Your task to perform on an android device: turn pop-ups on in chrome Image 0: 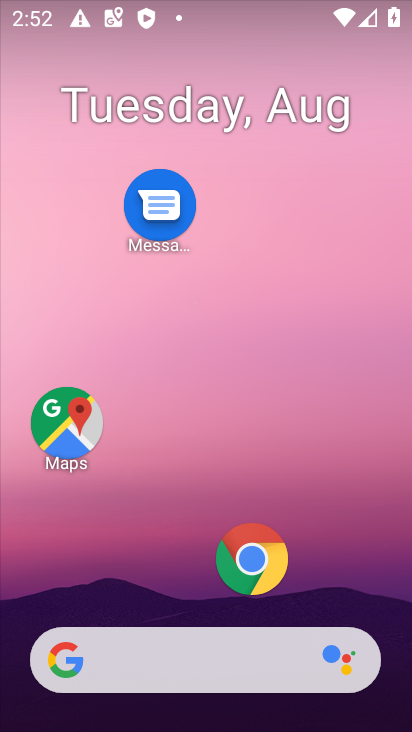
Step 0: click (250, 558)
Your task to perform on an android device: turn pop-ups on in chrome Image 1: 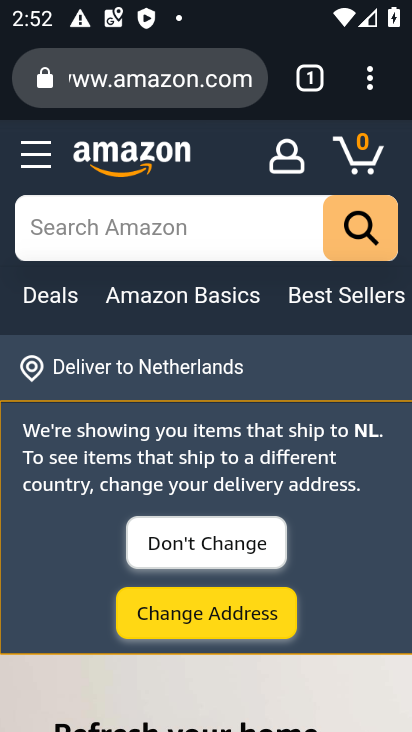
Step 1: click (365, 75)
Your task to perform on an android device: turn pop-ups on in chrome Image 2: 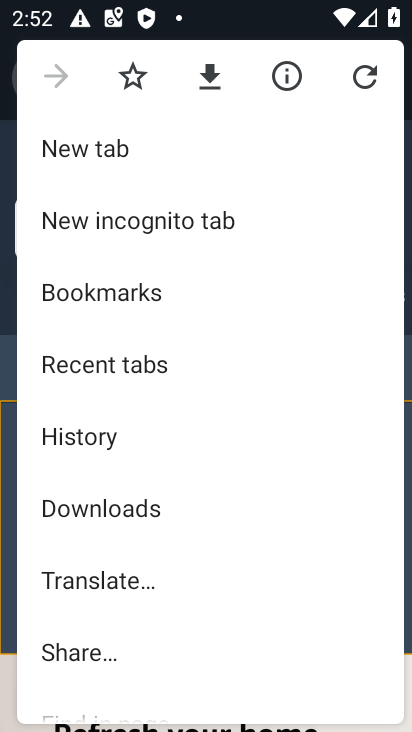
Step 2: drag from (191, 607) to (191, 309)
Your task to perform on an android device: turn pop-ups on in chrome Image 3: 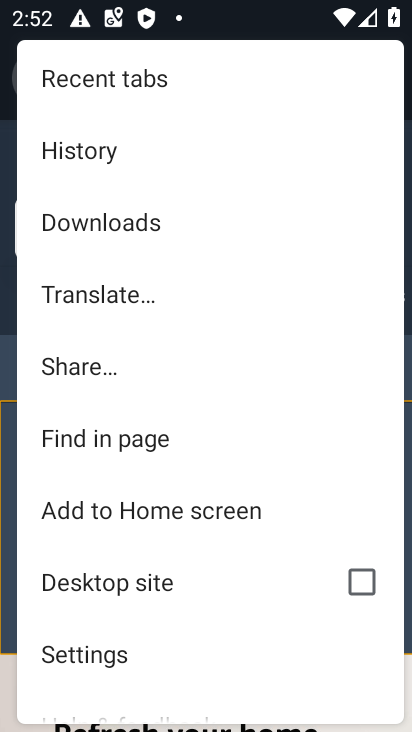
Step 3: click (105, 648)
Your task to perform on an android device: turn pop-ups on in chrome Image 4: 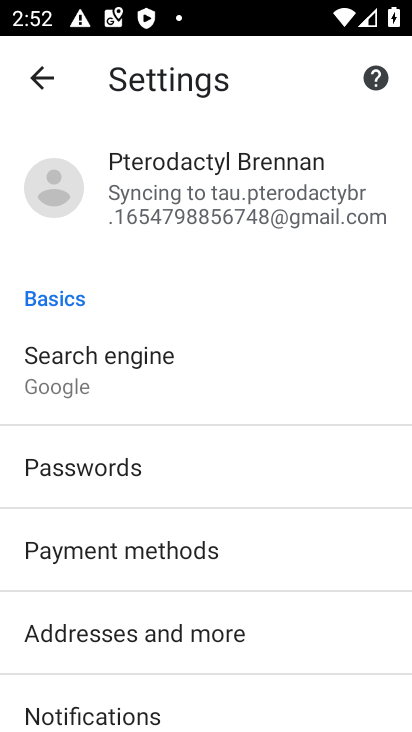
Step 4: drag from (242, 652) to (203, 347)
Your task to perform on an android device: turn pop-ups on in chrome Image 5: 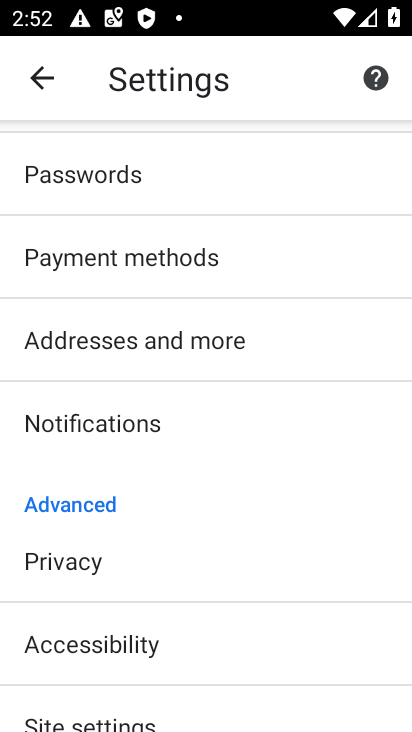
Step 5: drag from (185, 558) to (170, 262)
Your task to perform on an android device: turn pop-ups on in chrome Image 6: 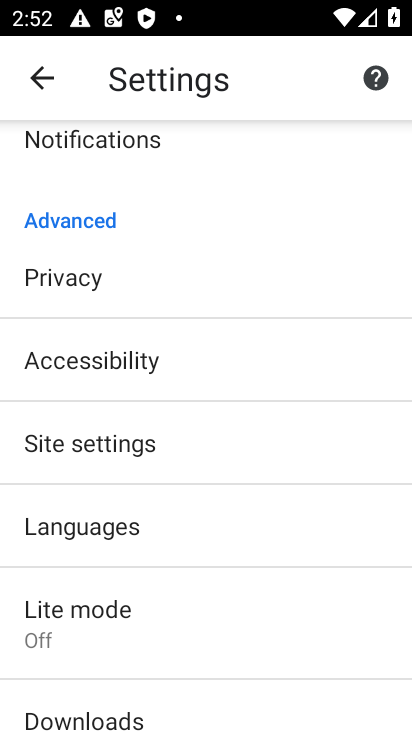
Step 6: click (100, 441)
Your task to perform on an android device: turn pop-ups on in chrome Image 7: 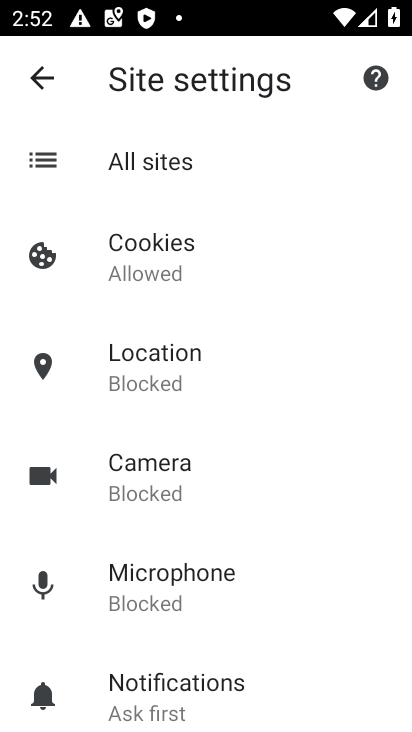
Step 7: drag from (249, 639) to (269, 218)
Your task to perform on an android device: turn pop-ups on in chrome Image 8: 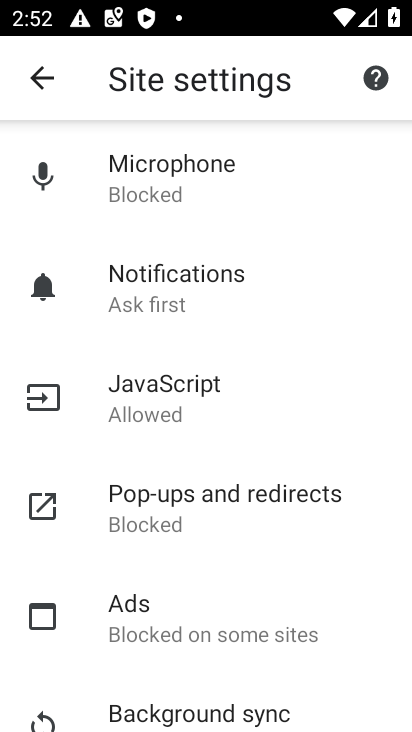
Step 8: click (157, 486)
Your task to perform on an android device: turn pop-ups on in chrome Image 9: 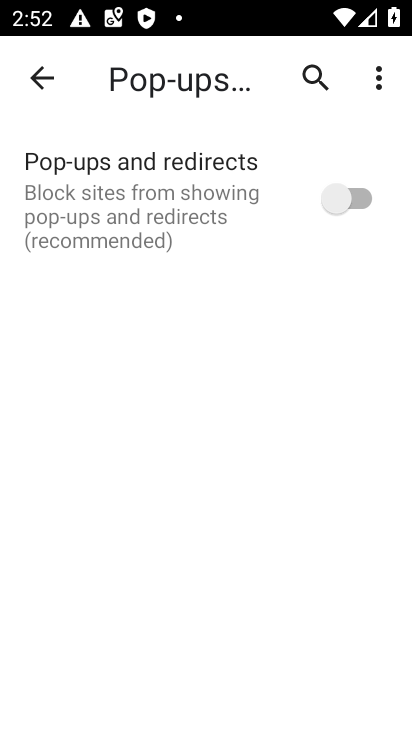
Step 9: click (347, 182)
Your task to perform on an android device: turn pop-ups on in chrome Image 10: 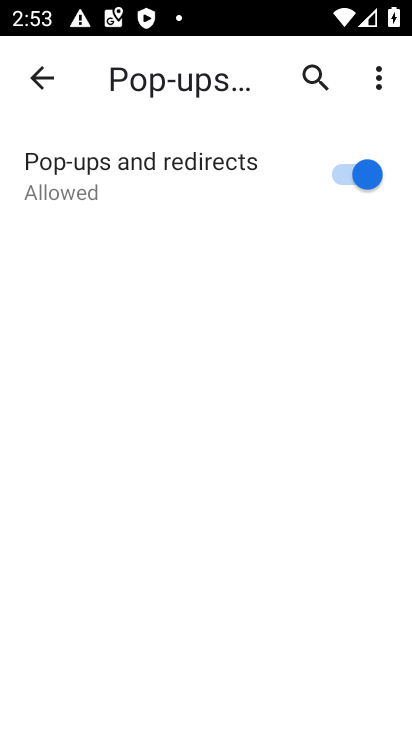
Step 10: task complete